Your task to perform on an android device: turn on sleep mode Image 0: 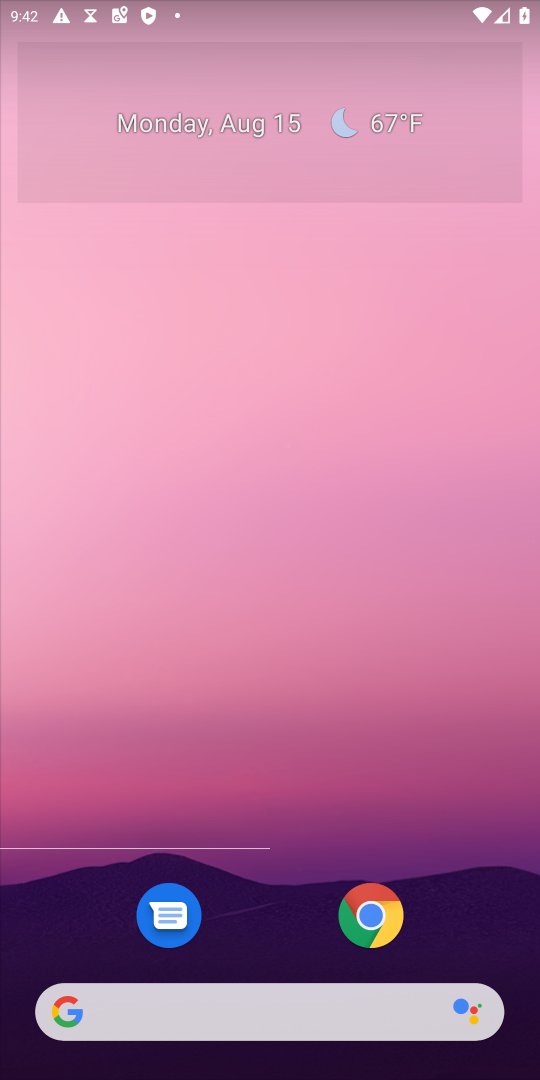
Step 0: drag from (279, 938) to (262, 484)
Your task to perform on an android device: turn on sleep mode Image 1: 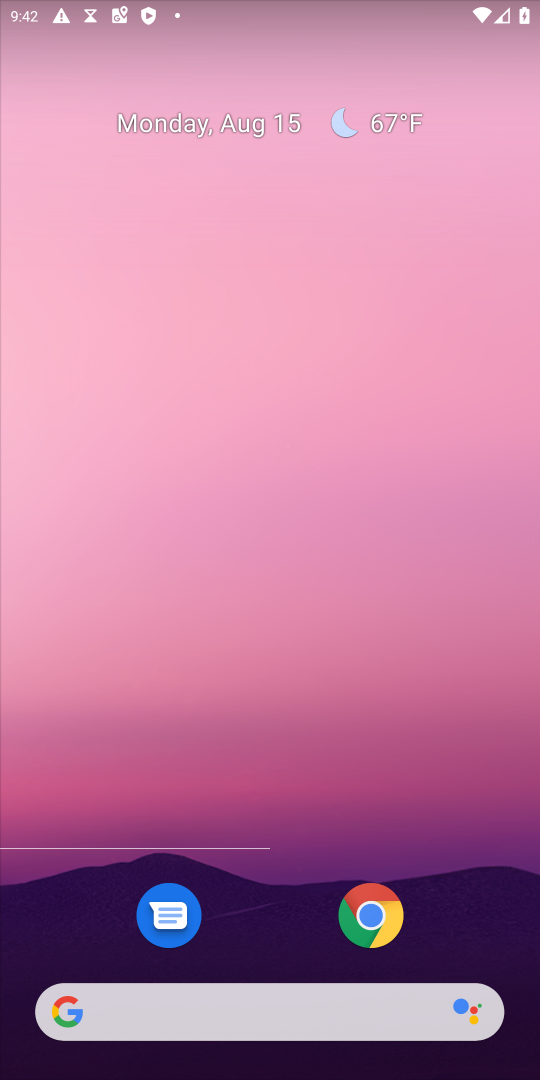
Step 1: drag from (205, 547) to (200, 323)
Your task to perform on an android device: turn on sleep mode Image 2: 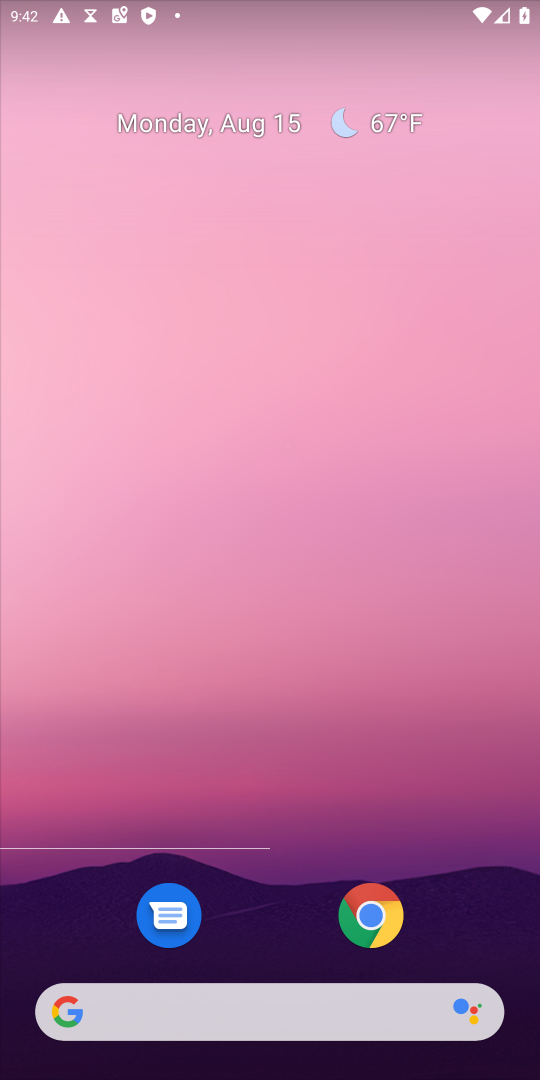
Step 2: drag from (259, 902) to (252, 358)
Your task to perform on an android device: turn on sleep mode Image 3: 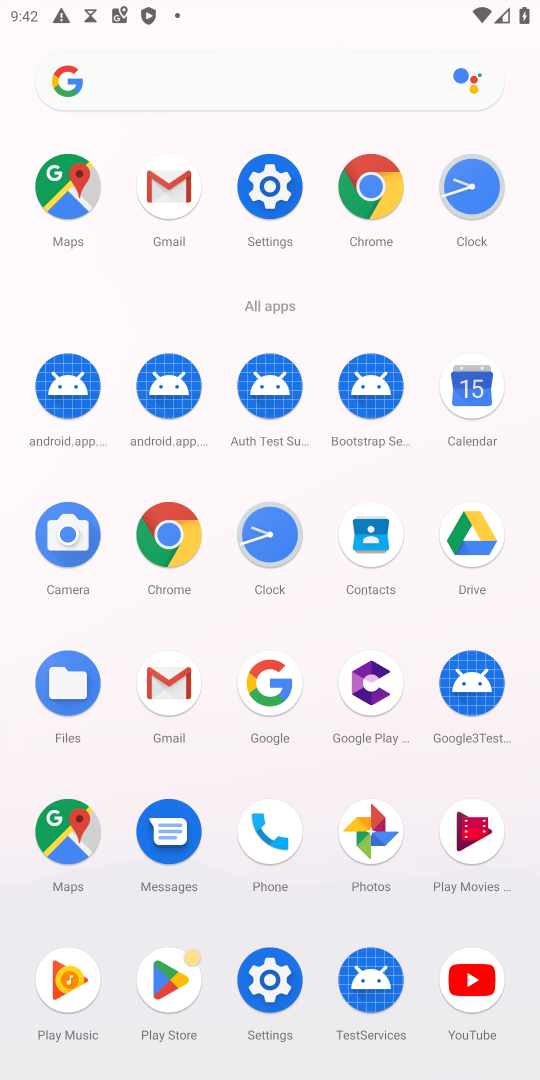
Step 3: click (266, 199)
Your task to perform on an android device: turn on sleep mode Image 4: 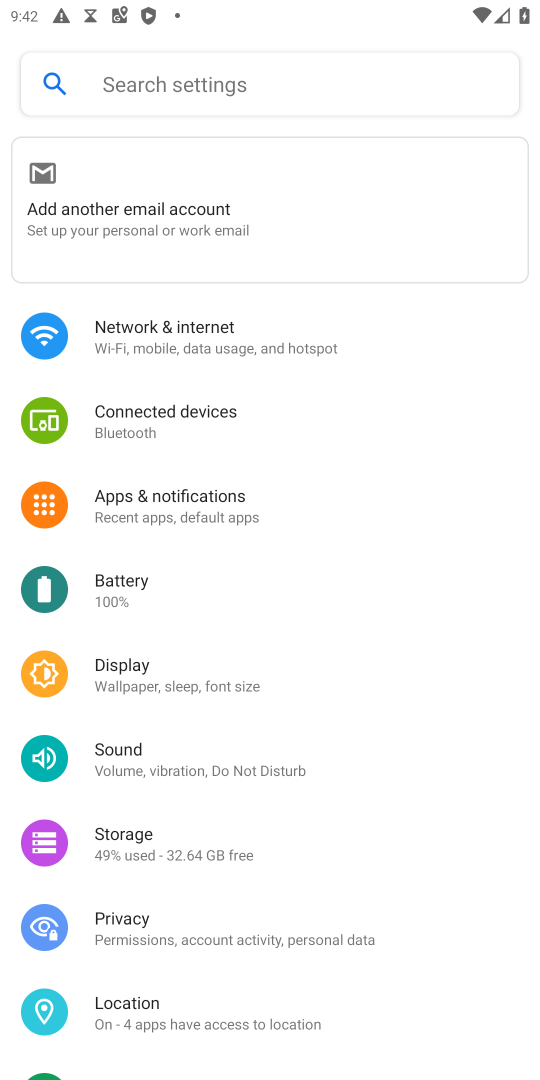
Step 4: click (170, 676)
Your task to perform on an android device: turn on sleep mode Image 5: 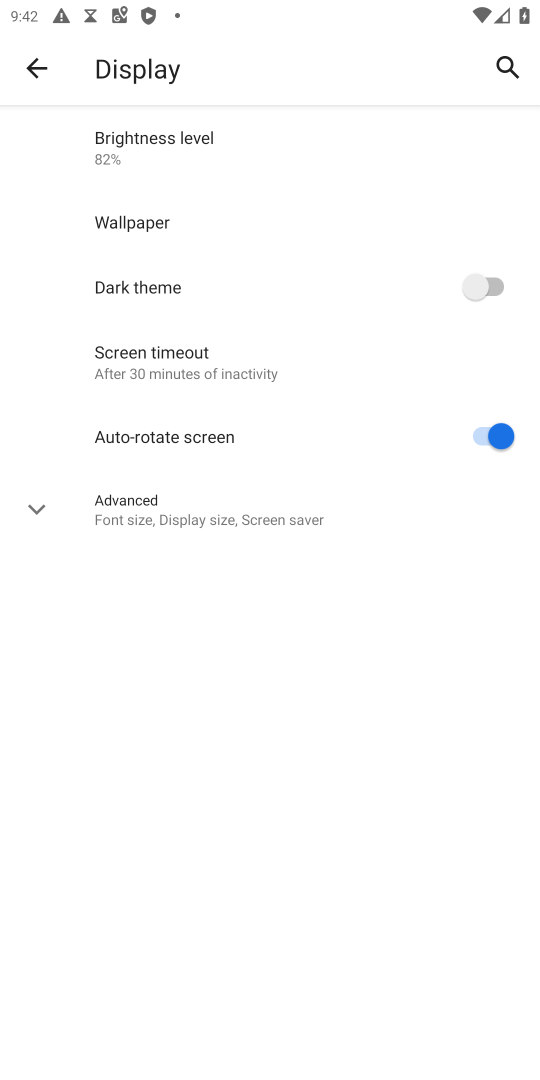
Step 5: task complete